Your task to perform on an android device: turn on data saver in the chrome app Image 0: 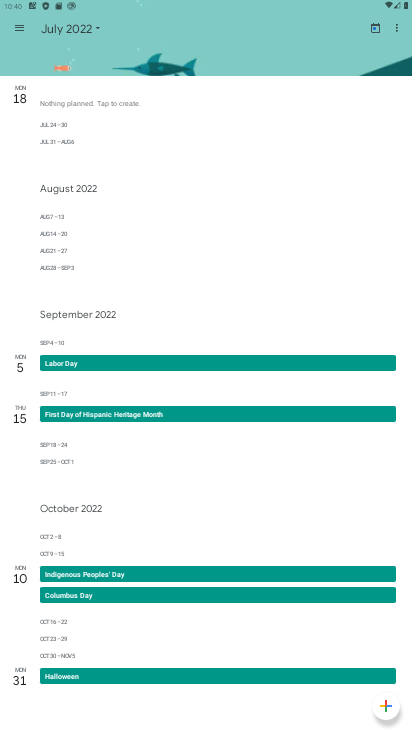
Step 0: press home button
Your task to perform on an android device: turn on data saver in the chrome app Image 1: 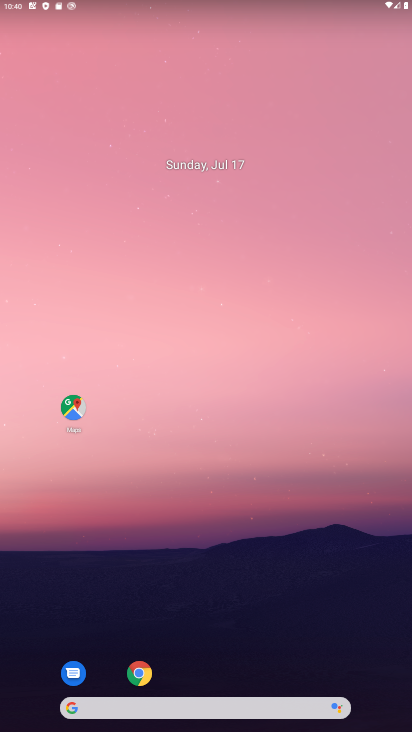
Step 1: click (139, 673)
Your task to perform on an android device: turn on data saver in the chrome app Image 2: 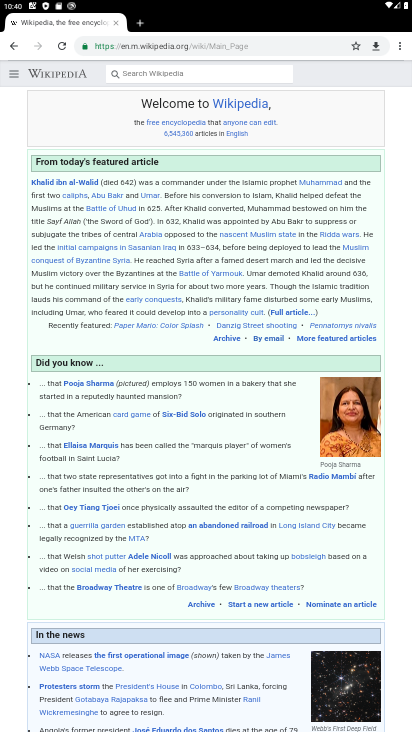
Step 2: click (397, 47)
Your task to perform on an android device: turn on data saver in the chrome app Image 3: 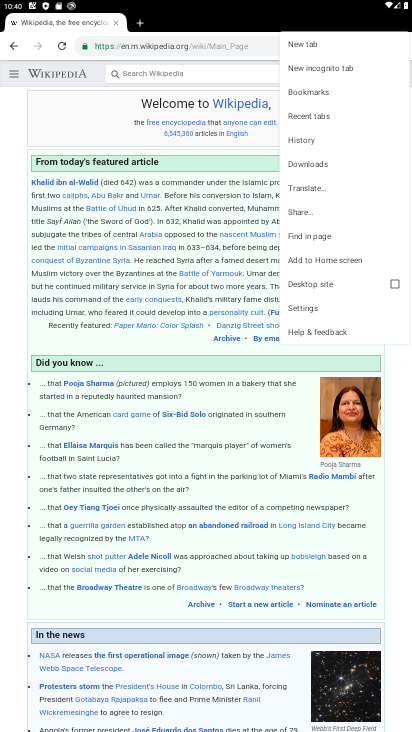
Step 3: click (314, 310)
Your task to perform on an android device: turn on data saver in the chrome app Image 4: 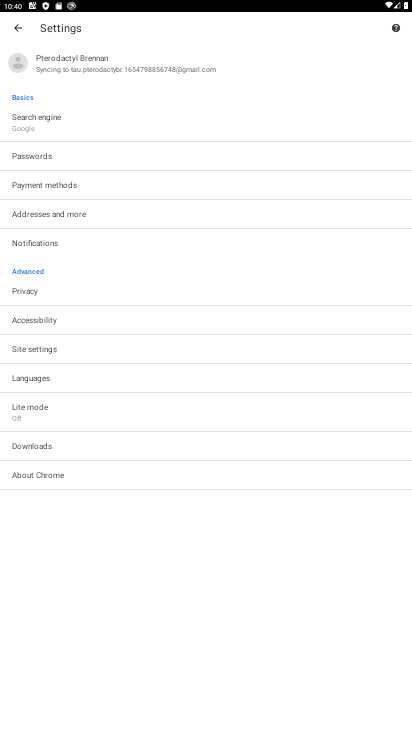
Step 4: click (38, 414)
Your task to perform on an android device: turn on data saver in the chrome app Image 5: 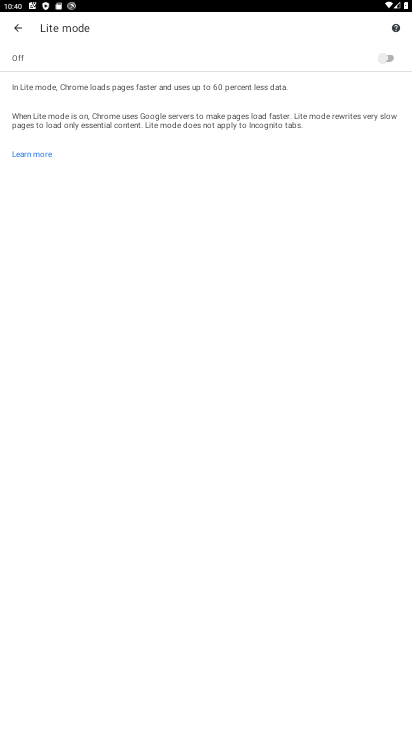
Step 5: click (386, 55)
Your task to perform on an android device: turn on data saver in the chrome app Image 6: 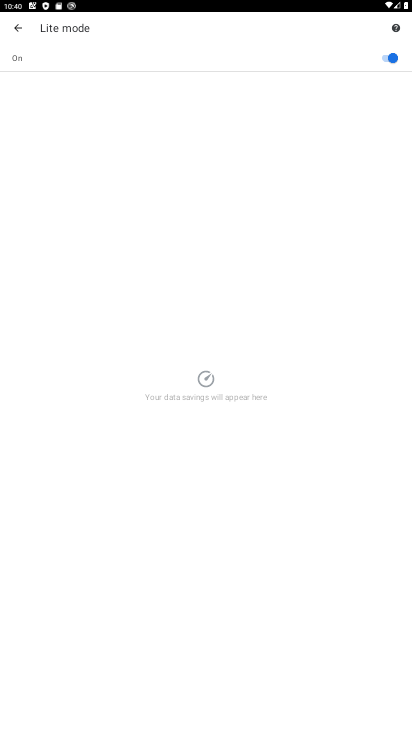
Step 6: task complete